Your task to perform on an android device: clear history in the chrome app Image 0: 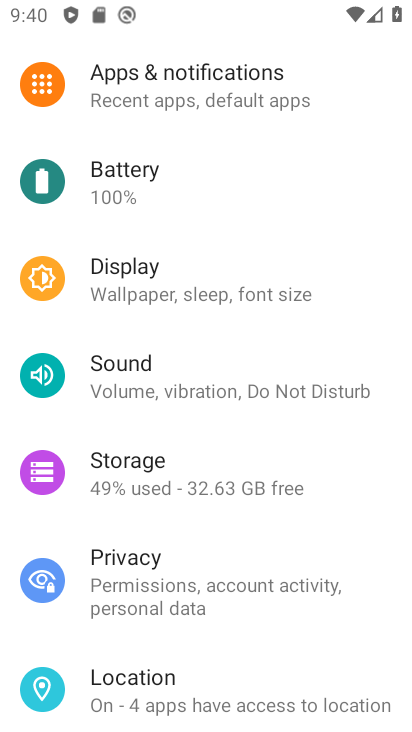
Step 0: click (399, 530)
Your task to perform on an android device: clear history in the chrome app Image 1: 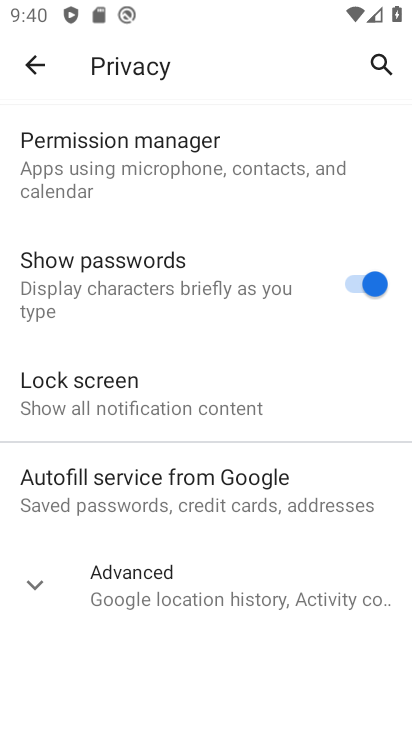
Step 1: press home button
Your task to perform on an android device: clear history in the chrome app Image 2: 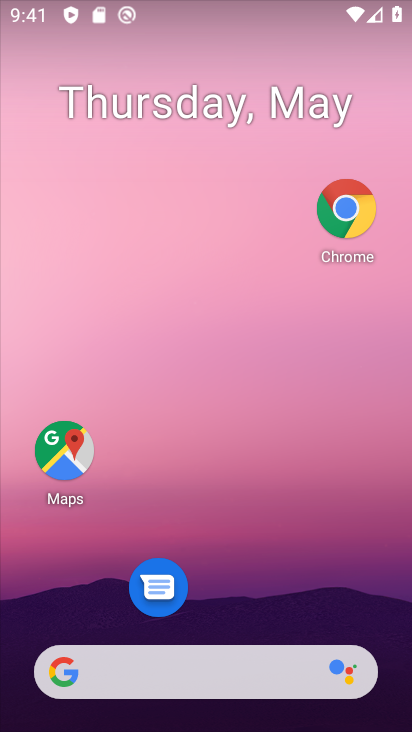
Step 2: click (337, 261)
Your task to perform on an android device: clear history in the chrome app Image 3: 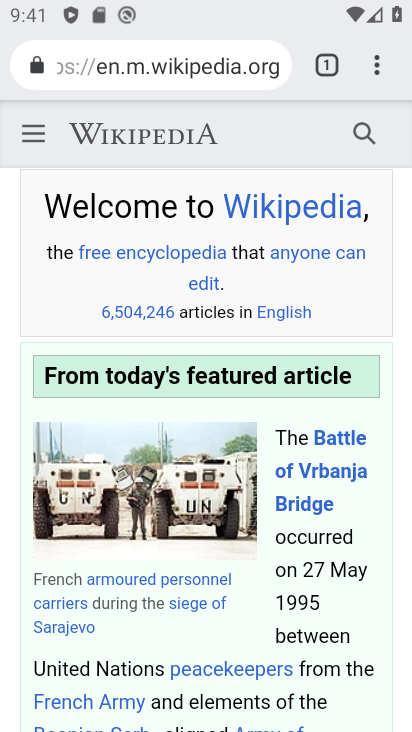
Step 3: click (379, 65)
Your task to perform on an android device: clear history in the chrome app Image 4: 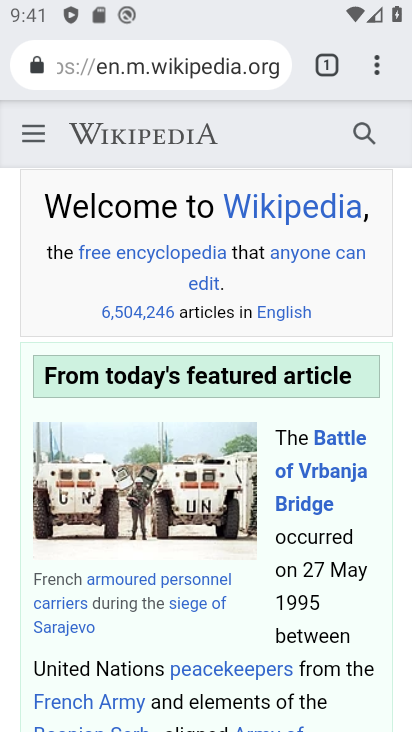
Step 4: click (379, 71)
Your task to perform on an android device: clear history in the chrome app Image 5: 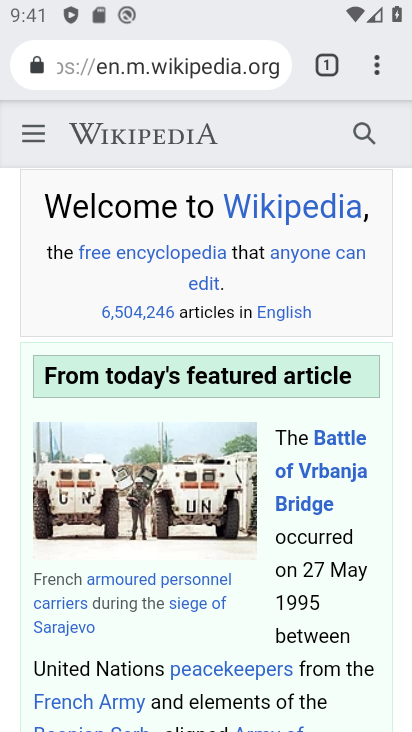
Step 5: click (377, 61)
Your task to perform on an android device: clear history in the chrome app Image 6: 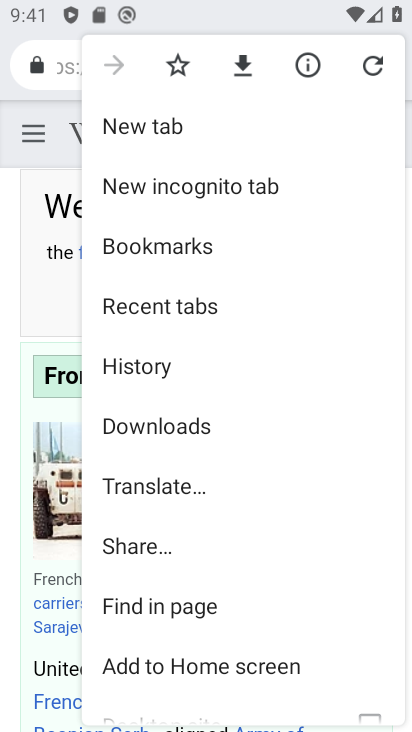
Step 6: click (133, 366)
Your task to perform on an android device: clear history in the chrome app Image 7: 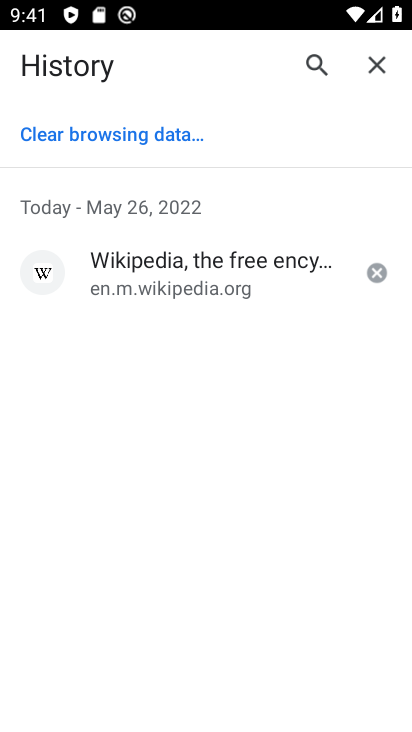
Step 7: click (117, 143)
Your task to perform on an android device: clear history in the chrome app Image 8: 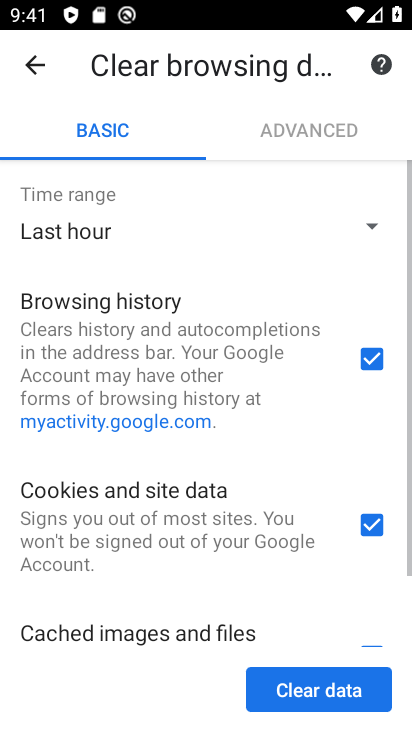
Step 8: click (299, 686)
Your task to perform on an android device: clear history in the chrome app Image 9: 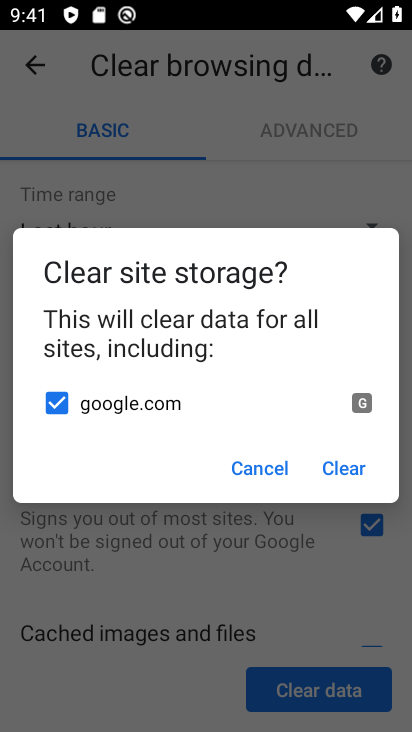
Step 9: click (340, 473)
Your task to perform on an android device: clear history in the chrome app Image 10: 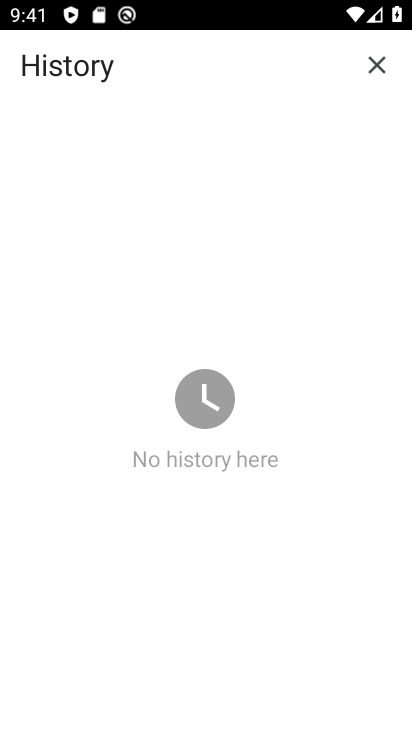
Step 10: task complete